Your task to perform on an android device: turn on improve location accuracy Image 0: 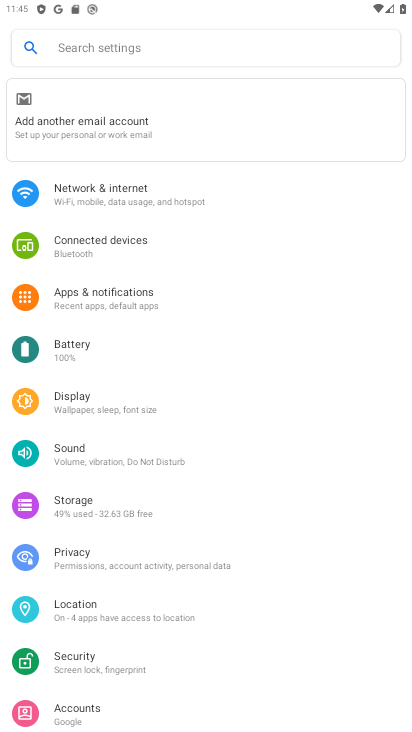
Step 0: click (103, 607)
Your task to perform on an android device: turn on improve location accuracy Image 1: 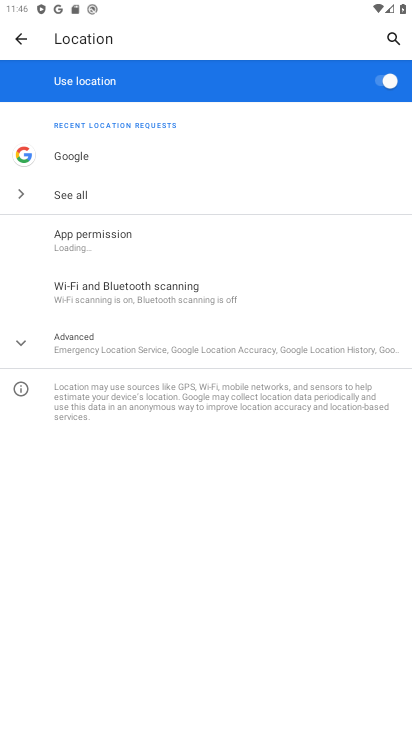
Step 1: click (149, 351)
Your task to perform on an android device: turn on improve location accuracy Image 2: 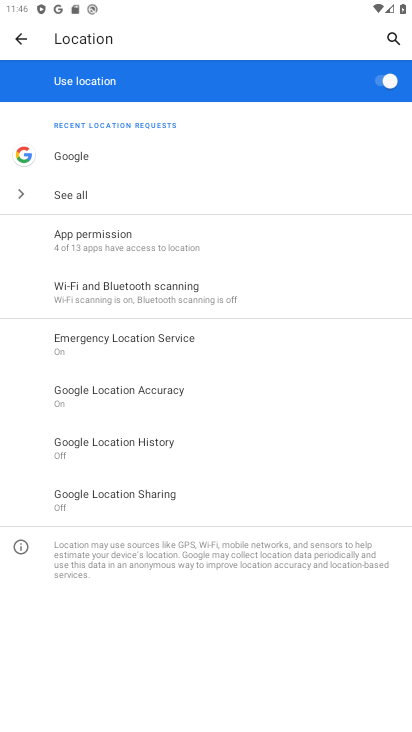
Step 2: task complete